Your task to perform on an android device: open app "Mercado Libre" (install if not already installed) Image 0: 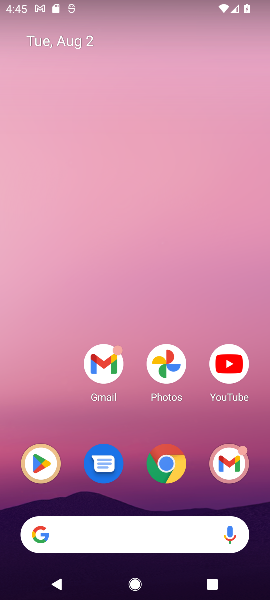
Step 0: click (43, 459)
Your task to perform on an android device: open app "Mercado Libre" (install if not already installed) Image 1: 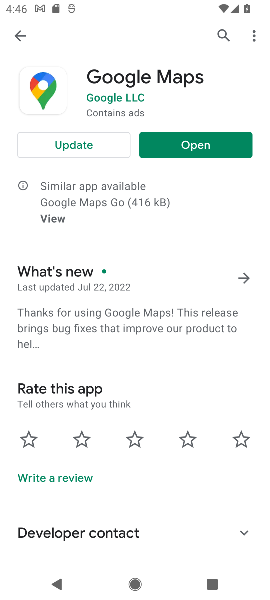
Step 1: click (219, 31)
Your task to perform on an android device: open app "Mercado Libre" (install if not already installed) Image 2: 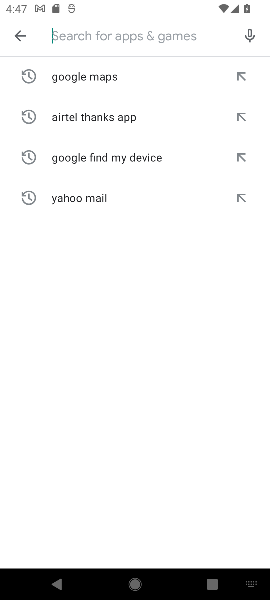
Step 2: type "Mercado Libre"
Your task to perform on an android device: open app "Mercado Libre" (install if not already installed) Image 3: 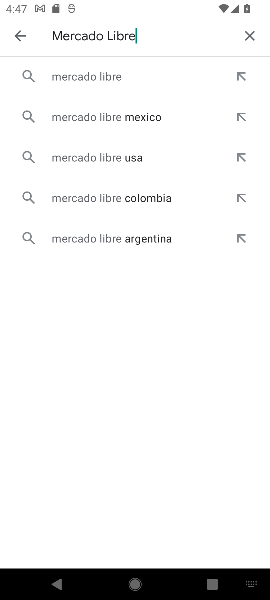
Step 3: click (121, 79)
Your task to perform on an android device: open app "Mercado Libre" (install if not already installed) Image 4: 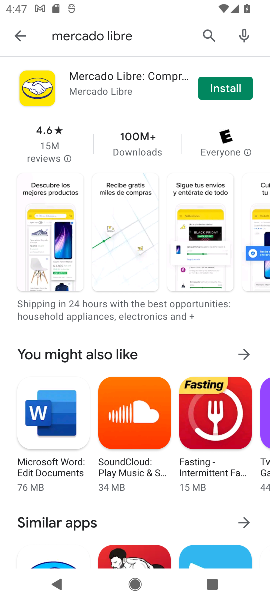
Step 4: click (223, 92)
Your task to perform on an android device: open app "Mercado Libre" (install if not already installed) Image 5: 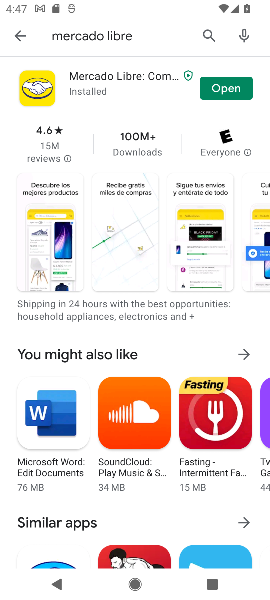
Step 5: click (230, 85)
Your task to perform on an android device: open app "Mercado Libre" (install if not already installed) Image 6: 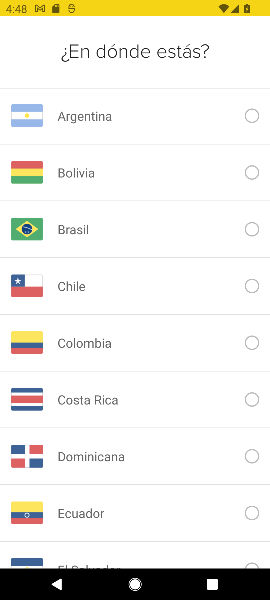
Step 6: task complete